Your task to perform on an android device: Open ESPN.com Image 0: 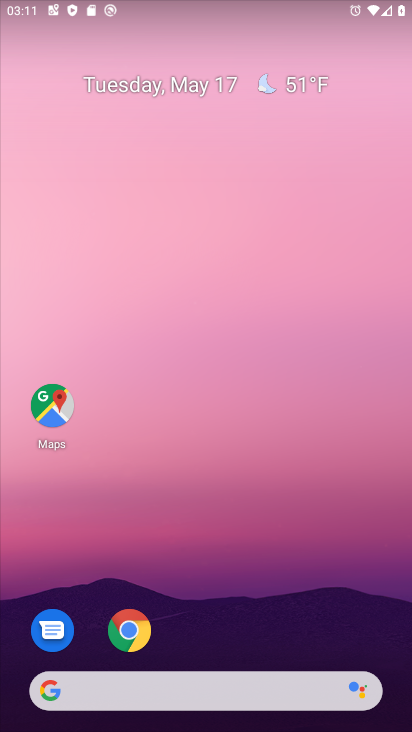
Step 0: click (138, 620)
Your task to perform on an android device: Open ESPN.com Image 1: 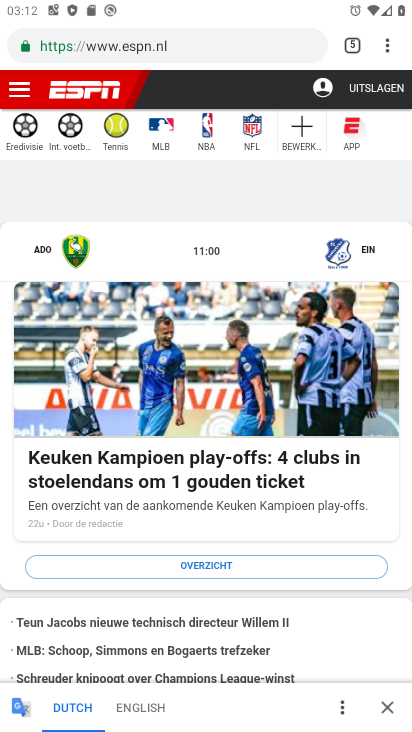
Step 1: task complete